Your task to perform on an android device: Clear all items from cart on walmart.com. Add "corsair k70" to the cart on walmart.com Image 0: 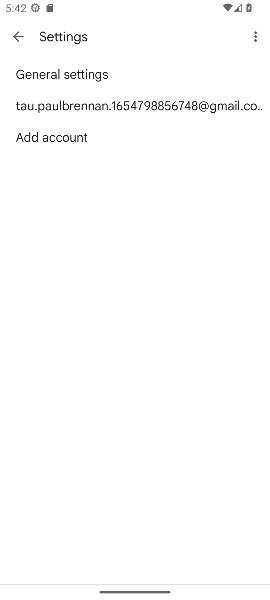
Step 0: press home button
Your task to perform on an android device: Clear all items from cart on walmart.com. Add "corsair k70" to the cart on walmart.com Image 1: 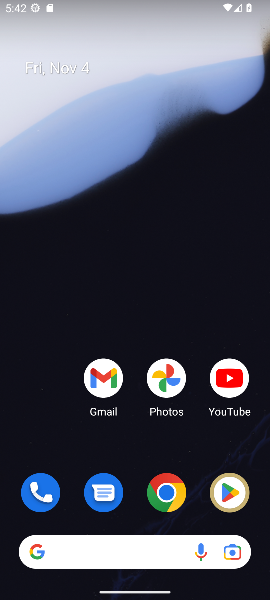
Step 1: drag from (179, 303) to (188, 23)
Your task to perform on an android device: Clear all items from cart on walmart.com. Add "corsair k70" to the cart on walmart.com Image 2: 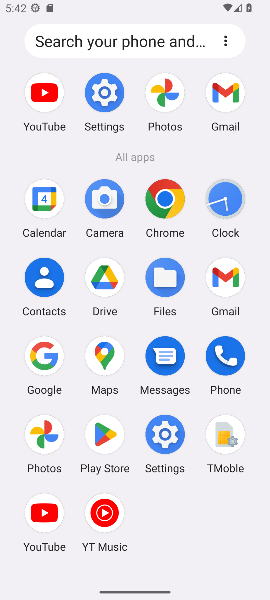
Step 2: click (164, 201)
Your task to perform on an android device: Clear all items from cart on walmart.com. Add "corsair k70" to the cart on walmart.com Image 3: 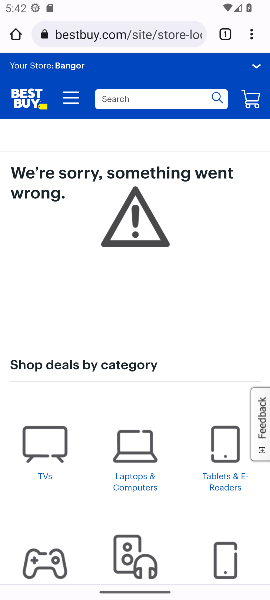
Step 3: click (157, 36)
Your task to perform on an android device: Clear all items from cart on walmart.com. Add "corsair k70" to the cart on walmart.com Image 4: 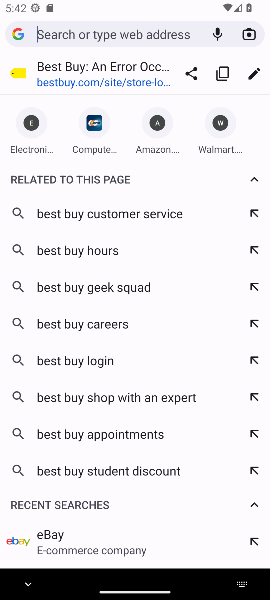
Step 4: type "walmart.com"
Your task to perform on an android device: Clear all items from cart on walmart.com. Add "corsair k70" to the cart on walmart.com Image 5: 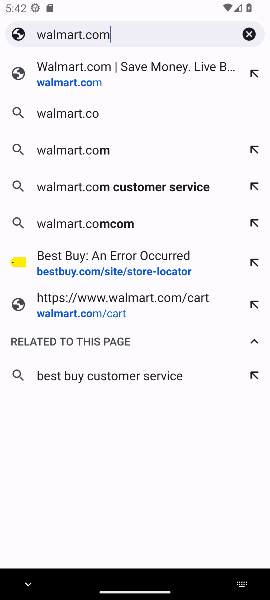
Step 5: press enter
Your task to perform on an android device: Clear all items from cart on walmart.com. Add "corsair k70" to the cart on walmart.com Image 6: 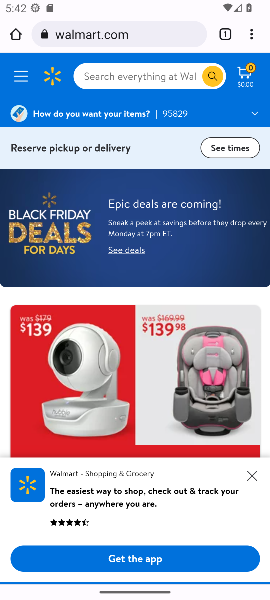
Step 6: click (249, 81)
Your task to perform on an android device: Clear all items from cart on walmart.com. Add "corsair k70" to the cart on walmart.com Image 7: 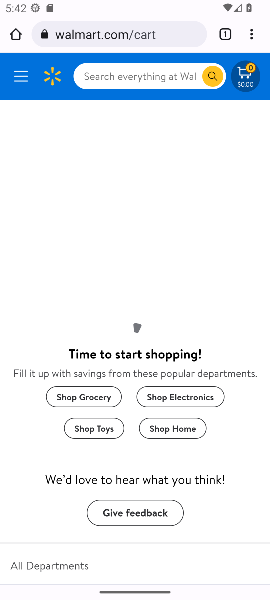
Step 7: click (147, 75)
Your task to perform on an android device: Clear all items from cart on walmart.com. Add "corsair k70" to the cart on walmart.com Image 8: 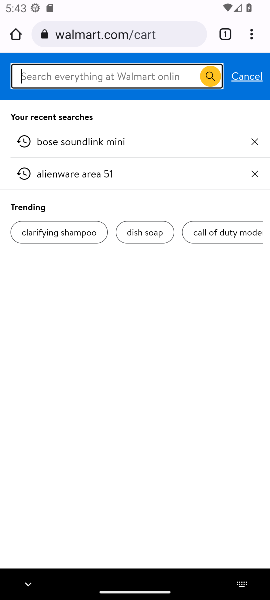
Step 8: type "corsair k70"
Your task to perform on an android device: Clear all items from cart on walmart.com. Add "corsair k70" to the cart on walmart.com Image 9: 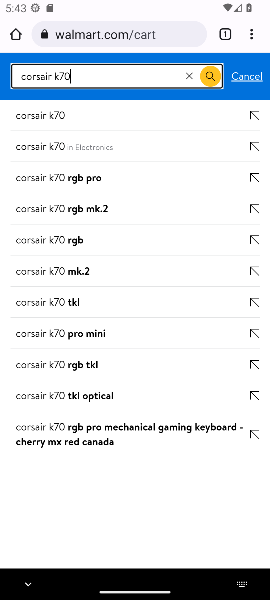
Step 9: press enter
Your task to perform on an android device: Clear all items from cart on walmart.com. Add "corsair k70" to the cart on walmart.com Image 10: 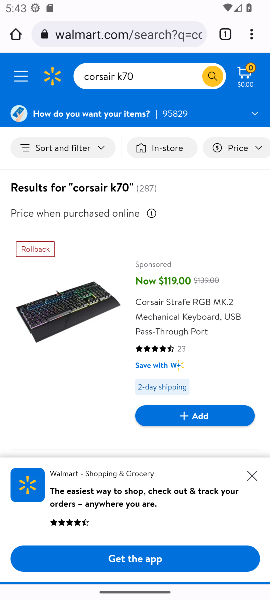
Step 10: drag from (159, 402) to (165, 66)
Your task to perform on an android device: Clear all items from cart on walmart.com. Add "corsair k70" to the cart on walmart.com Image 11: 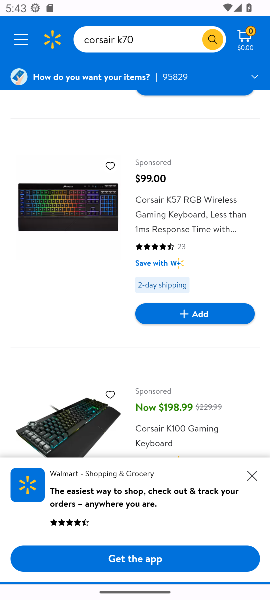
Step 11: drag from (107, 396) to (121, 56)
Your task to perform on an android device: Clear all items from cart on walmart.com. Add "corsair k70" to the cart on walmart.com Image 12: 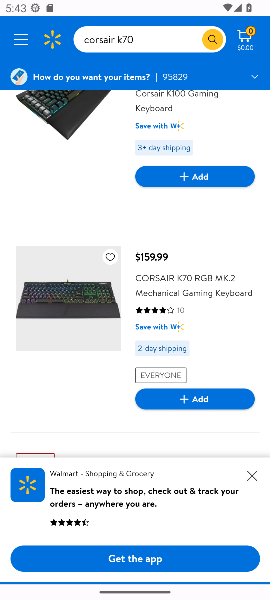
Step 12: click (208, 290)
Your task to perform on an android device: Clear all items from cart on walmart.com. Add "corsair k70" to the cart on walmart.com Image 13: 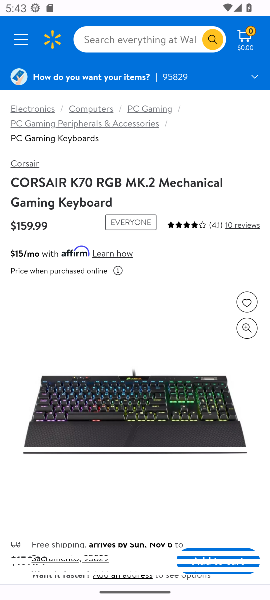
Step 13: drag from (182, 456) to (170, 202)
Your task to perform on an android device: Clear all items from cart on walmart.com. Add "corsair k70" to the cart on walmart.com Image 14: 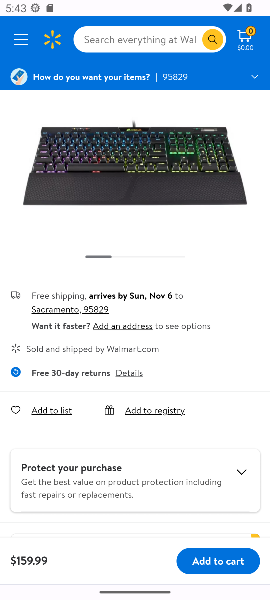
Step 14: drag from (183, 229) to (219, 530)
Your task to perform on an android device: Clear all items from cart on walmart.com. Add "corsair k70" to the cart on walmart.com Image 15: 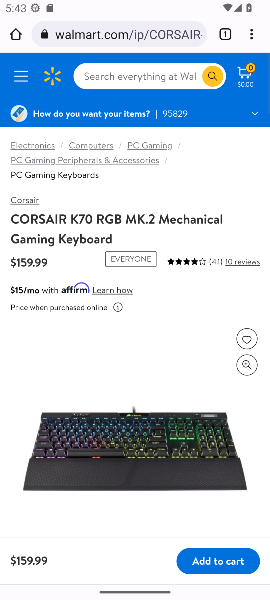
Step 15: click (221, 558)
Your task to perform on an android device: Clear all items from cart on walmart.com. Add "corsair k70" to the cart on walmart.com Image 16: 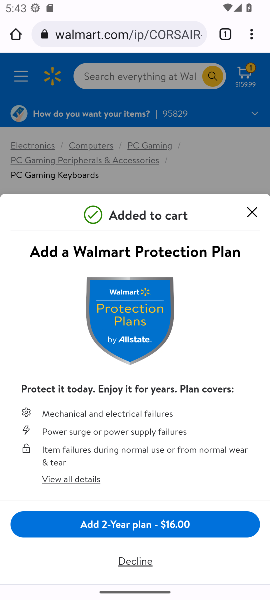
Step 16: task complete